Your task to perform on an android device: Check the news Image 0: 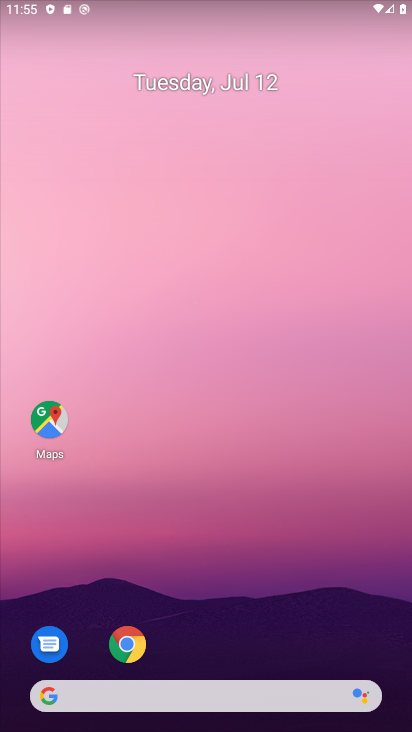
Step 0: drag from (212, 607) to (262, 109)
Your task to perform on an android device: Check the news Image 1: 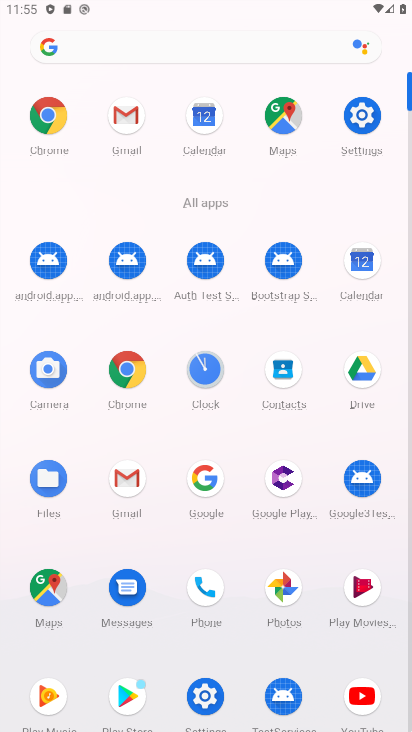
Step 1: click (206, 479)
Your task to perform on an android device: Check the news Image 2: 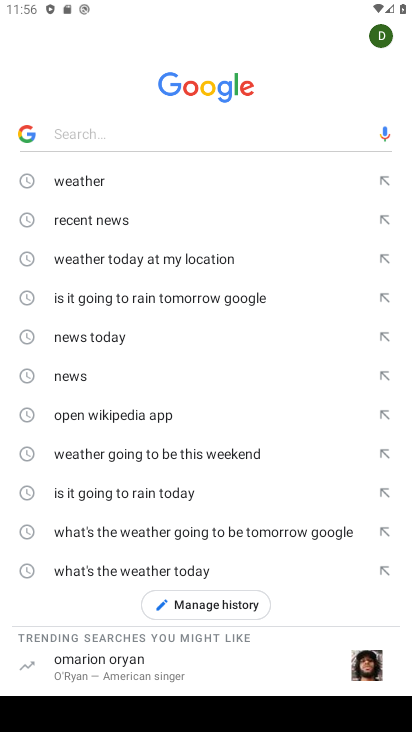
Step 2: click (103, 373)
Your task to perform on an android device: Check the news Image 3: 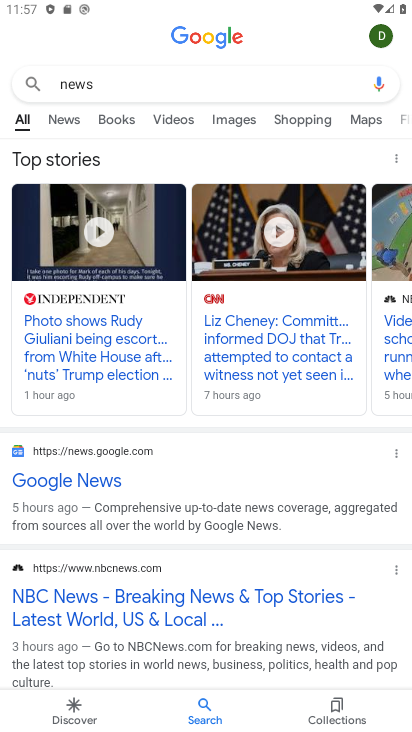
Step 3: task complete